Your task to perform on an android device: turn on airplane mode Image 0: 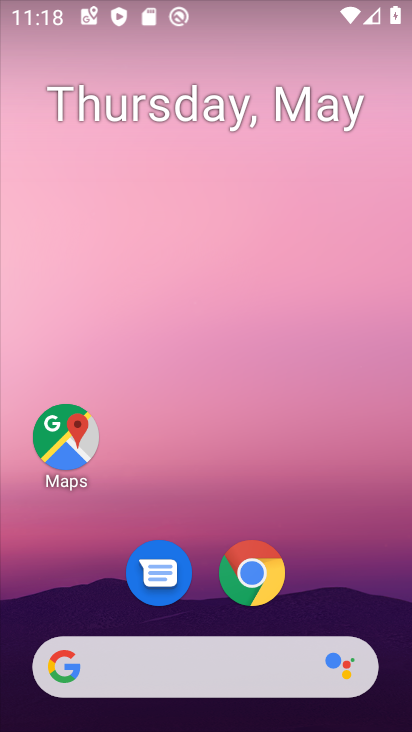
Step 0: drag from (345, 7) to (301, 334)
Your task to perform on an android device: turn on airplane mode Image 1: 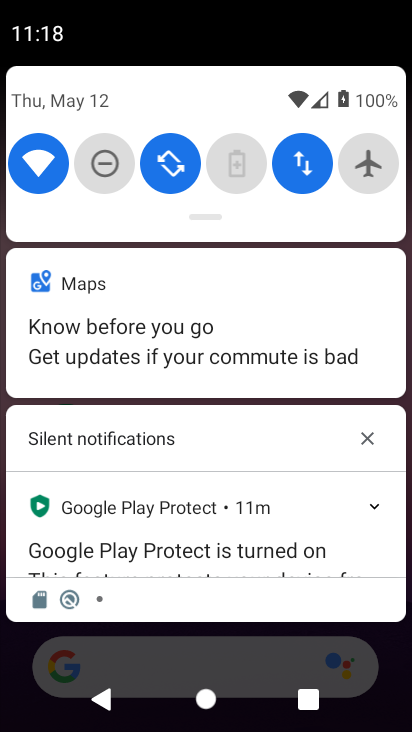
Step 1: click (373, 164)
Your task to perform on an android device: turn on airplane mode Image 2: 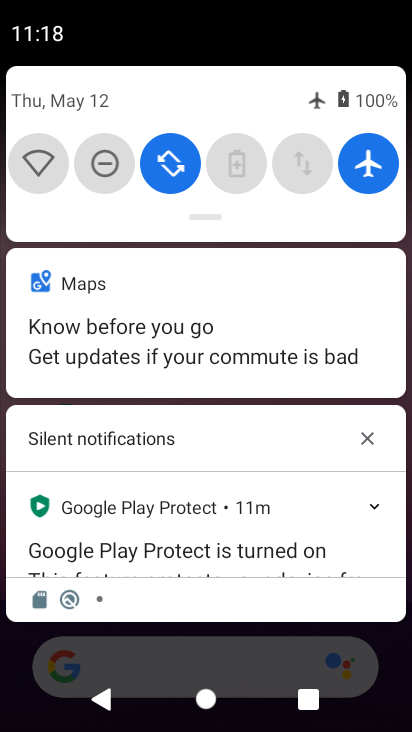
Step 2: task complete